Your task to perform on an android device: What's on my calendar tomorrow? Image 0: 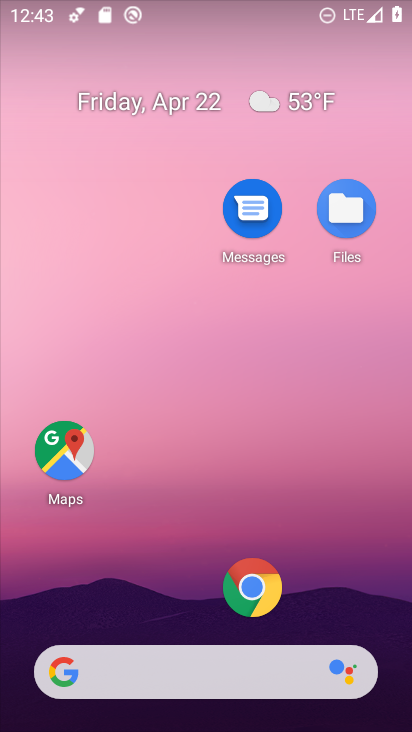
Step 0: drag from (164, 612) to (208, 202)
Your task to perform on an android device: What's on my calendar tomorrow? Image 1: 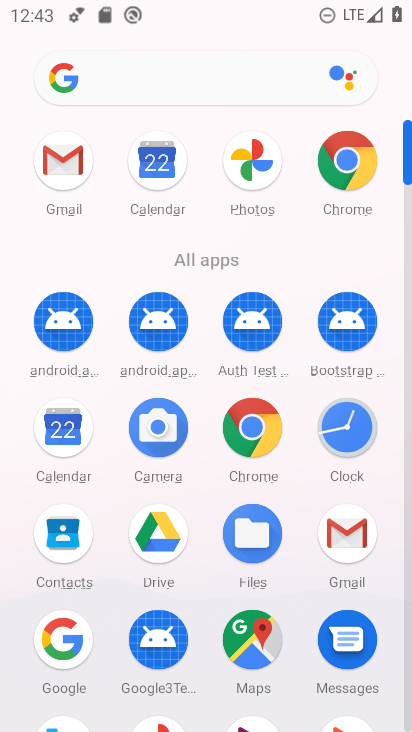
Step 1: click (66, 434)
Your task to perform on an android device: What's on my calendar tomorrow? Image 2: 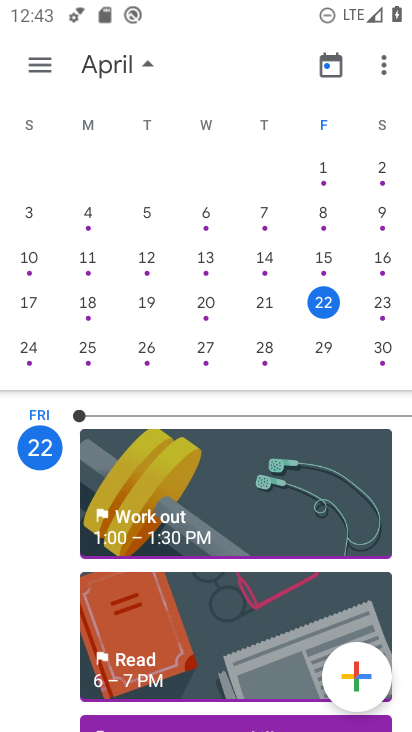
Step 2: click (371, 305)
Your task to perform on an android device: What's on my calendar tomorrow? Image 3: 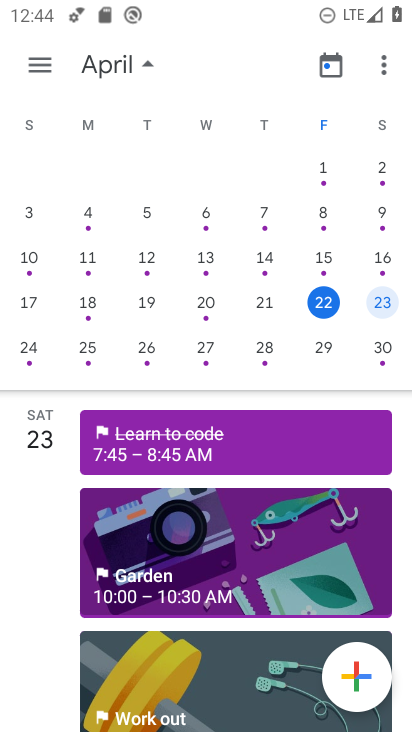
Step 3: click (371, 302)
Your task to perform on an android device: What's on my calendar tomorrow? Image 4: 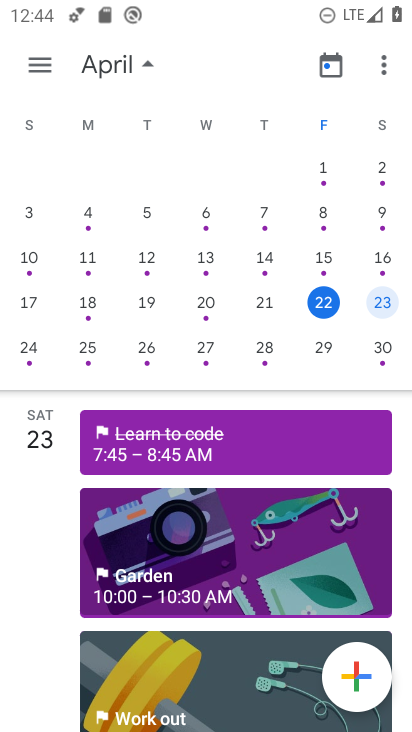
Step 4: task complete